Your task to perform on an android device: see sites visited before in the chrome app Image 0: 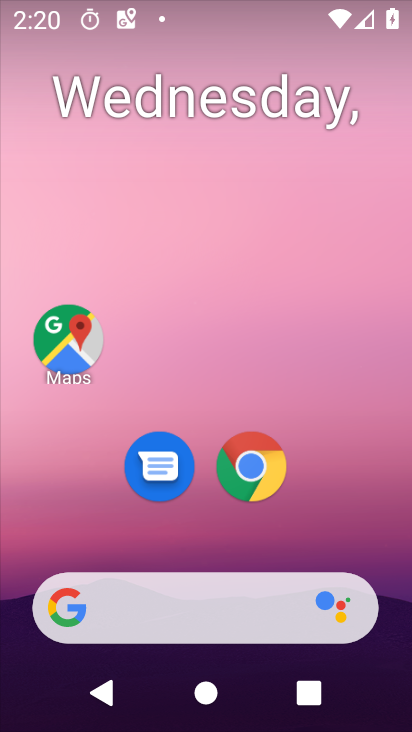
Step 0: click (237, 471)
Your task to perform on an android device: see sites visited before in the chrome app Image 1: 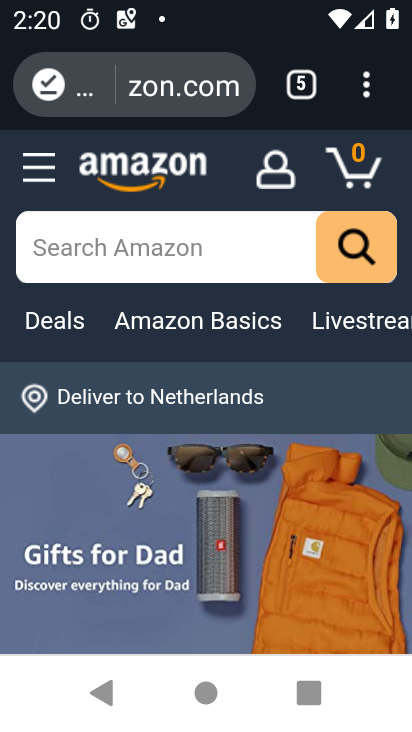
Step 1: click (367, 106)
Your task to perform on an android device: see sites visited before in the chrome app Image 2: 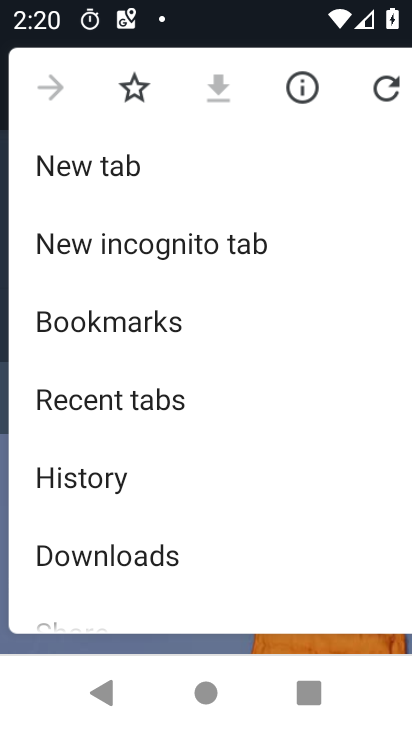
Step 2: drag from (210, 571) to (200, 127)
Your task to perform on an android device: see sites visited before in the chrome app Image 3: 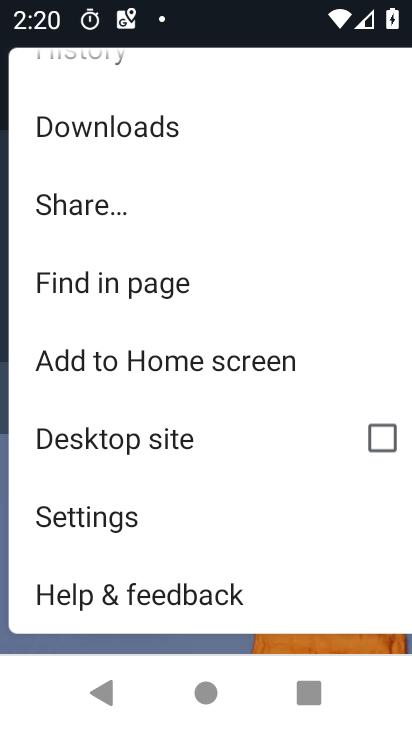
Step 3: click (135, 514)
Your task to perform on an android device: see sites visited before in the chrome app Image 4: 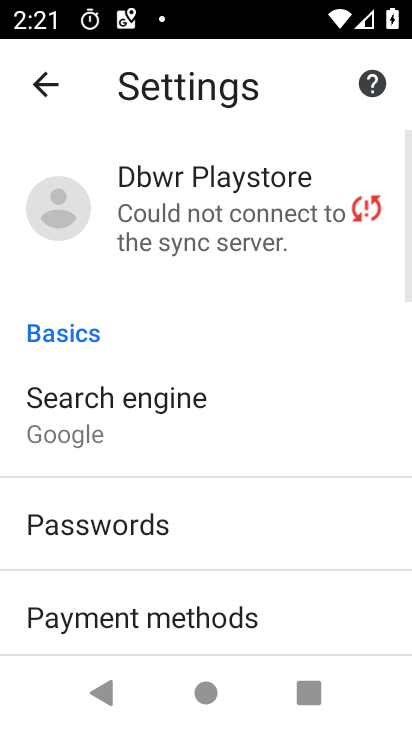
Step 4: drag from (123, 505) to (159, 98)
Your task to perform on an android device: see sites visited before in the chrome app Image 5: 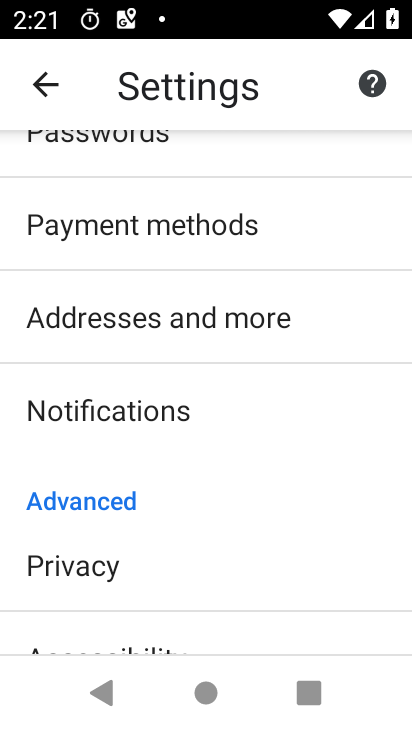
Step 5: drag from (154, 536) to (180, 183)
Your task to perform on an android device: see sites visited before in the chrome app Image 6: 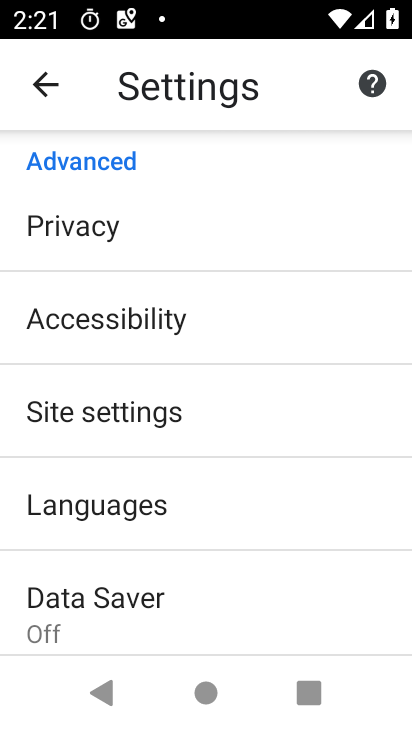
Step 6: click (161, 409)
Your task to perform on an android device: see sites visited before in the chrome app Image 7: 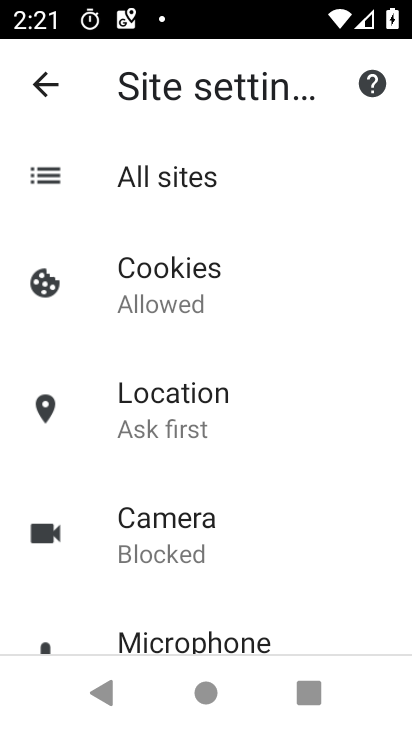
Step 7: task complete